Your task to perform on an android device: add a label to a message in the gmail app Image 0: 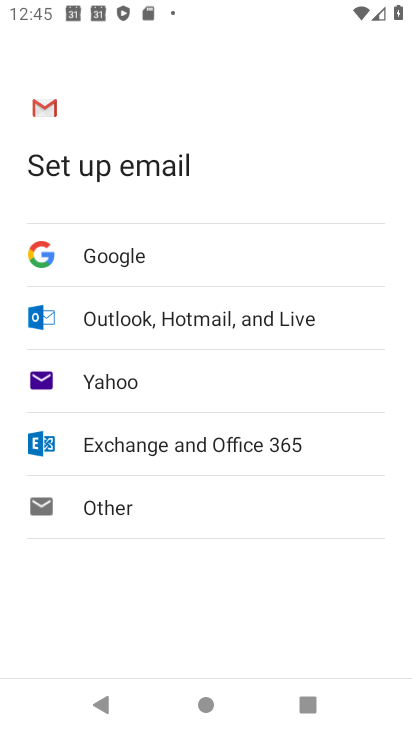
Step 0: press home button
Your task to perform on an android device: add a label to a message in the gmail app Image 1: 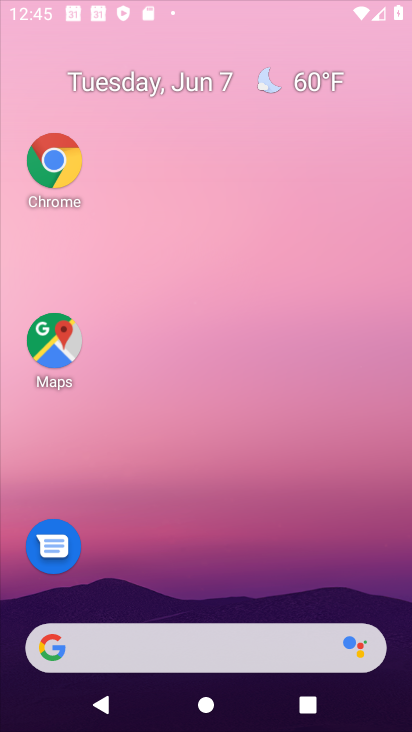
Step 1: drag from (247, 547) to (290, 152)
Your task to perform on an android device: add a label to a message in the gmail app Image 2: 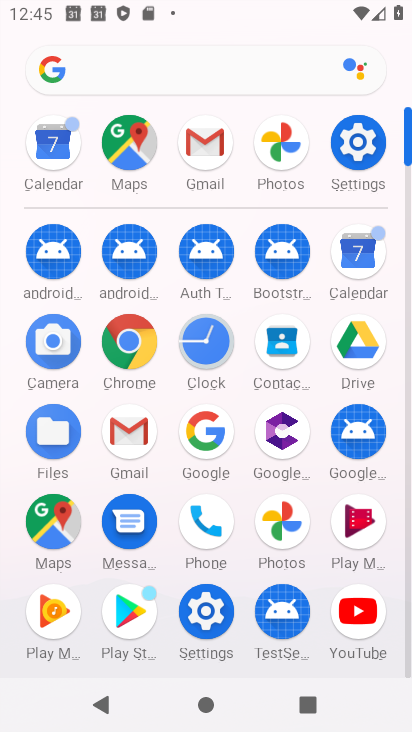
Step 2: click (136, 429)
Your task to perform on an android device: add a label to a message in the gmail app Image 3: 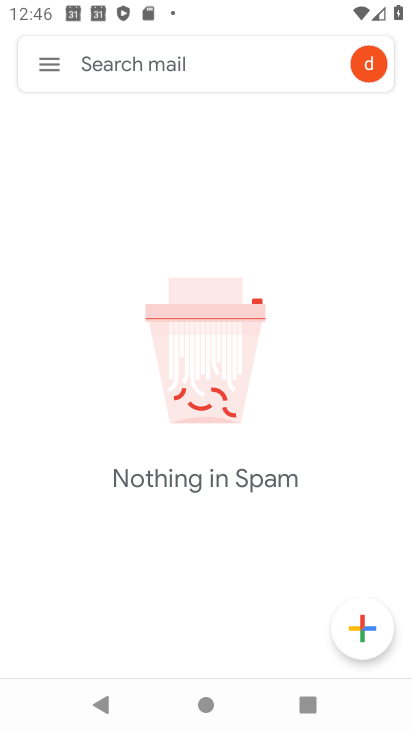
Step 3: drag from (230, 505) to (296, 304)
Your task to perform on an android device: add a label to a message in the gmail app Image 4: 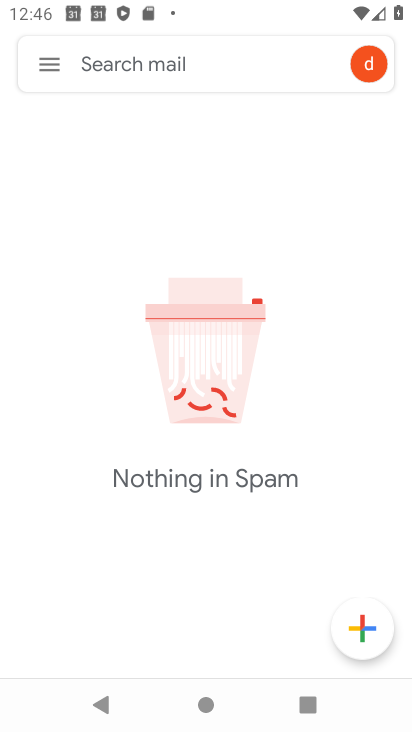
Step 4: click (21, 59)
Your task to perform on an android device: add a label to a message in the gmail app Image 5: 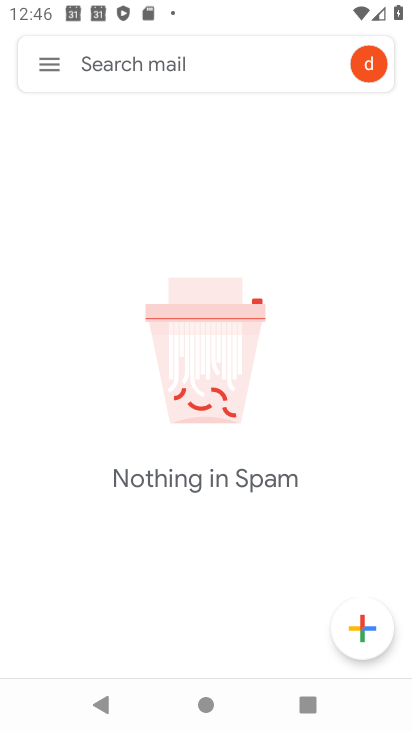
Step 5: task complete